Your task to perform on an android device: Turn off the flashlight Image 0: 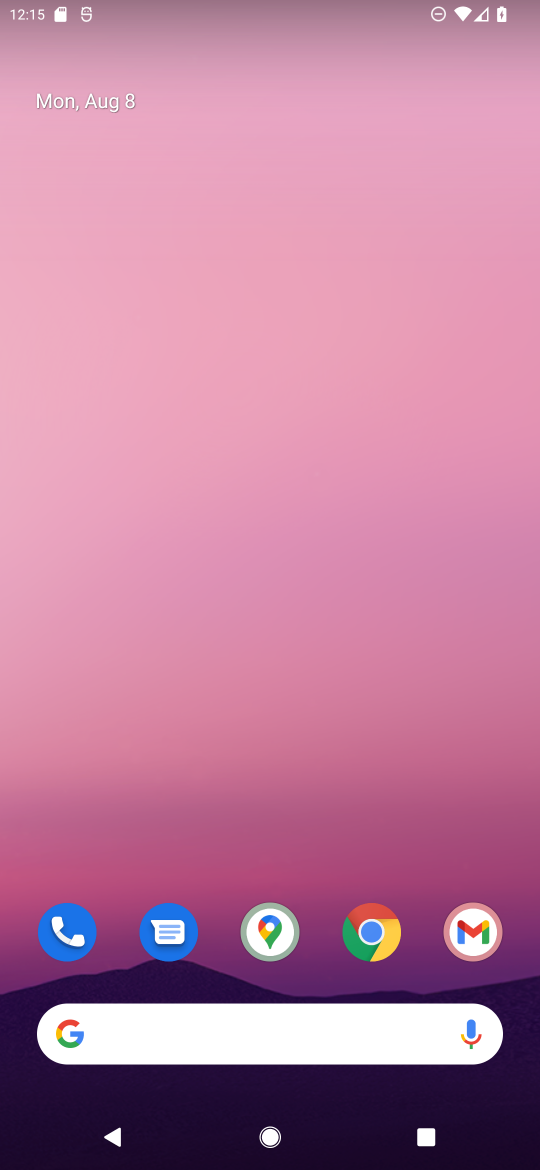
Step 0: drag from (315, 908) to (228, 287)
Your task to perform on an android device: Turn off the flashlight Image 1: 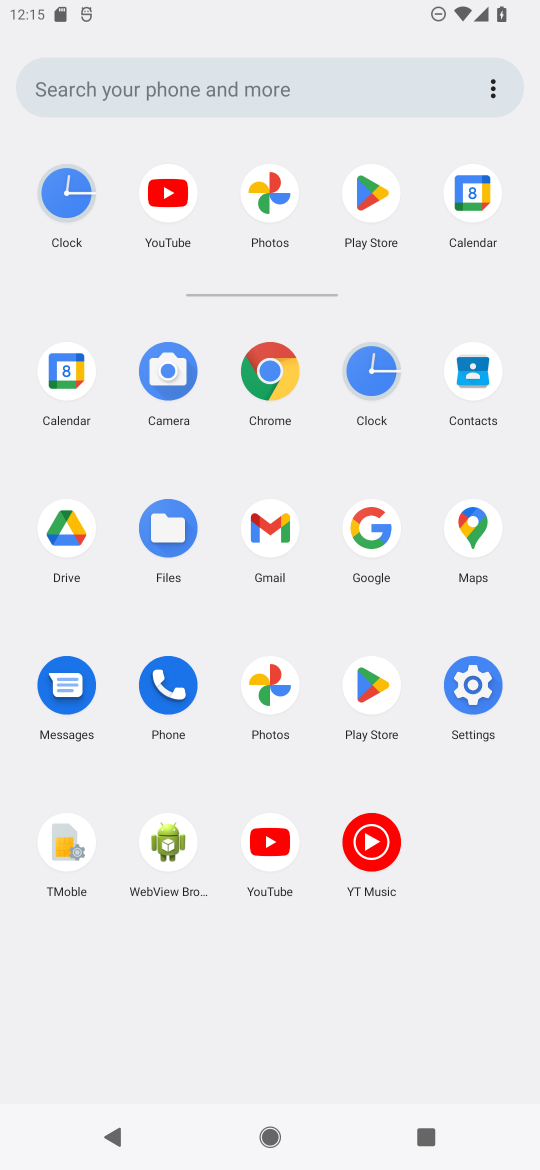
Step 1: click (483, 698)
Your task to perform on an android device: Turn off the flashlight Image 2: 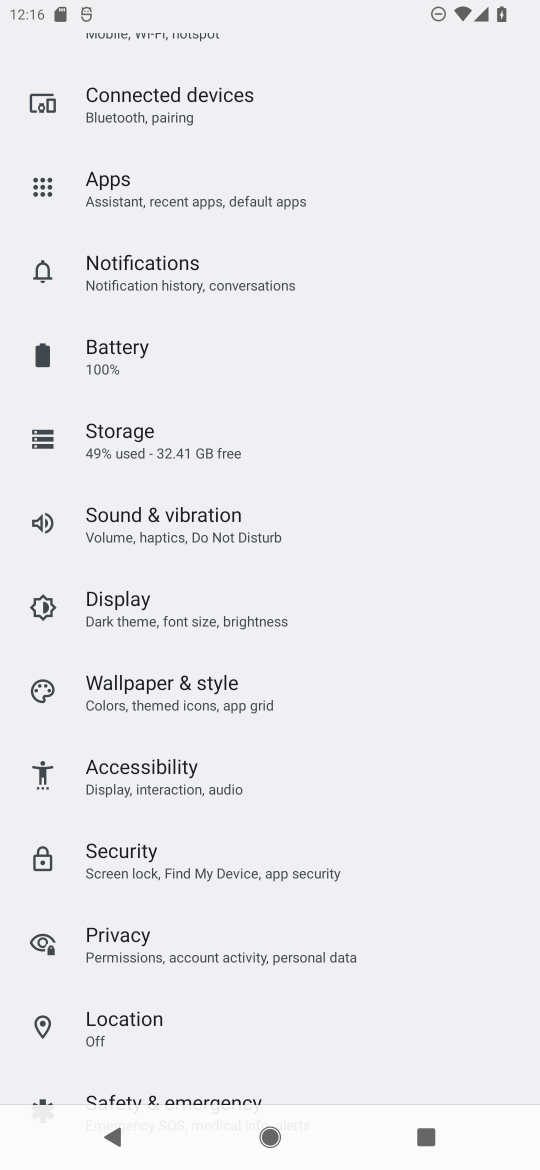
Step 2: task complete